Your task to perform on an android device: Open sound settings Image 0: 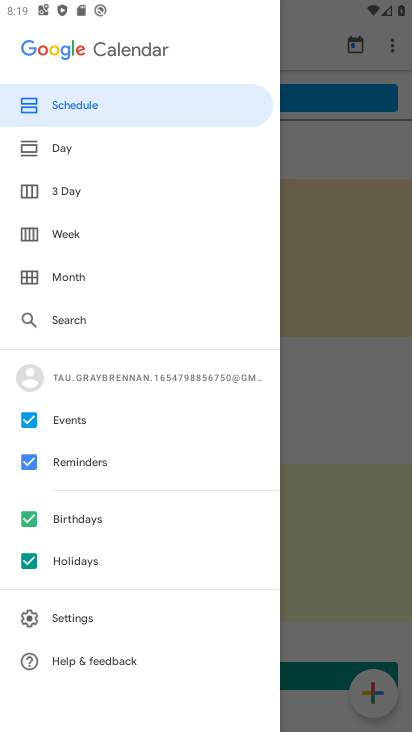
Step 0: press home button
Your task to perform on an android device: Open sound settings Image 1: 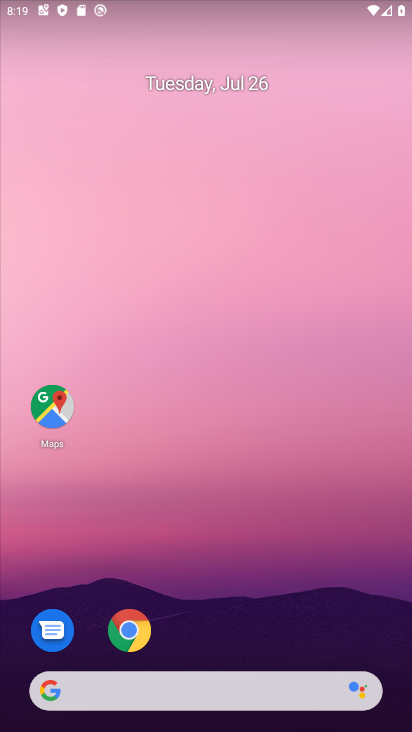
Step 1: drag from (275, 650) to (275, 76)
Your task to perform on an android device: Open sound settings Image 2: 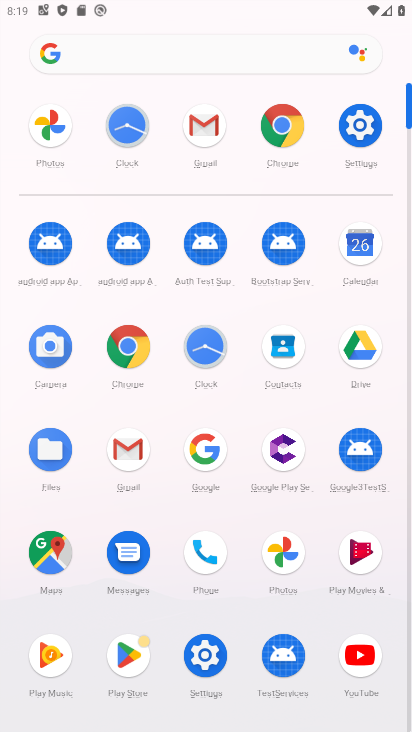
Step 2: click (367, 110)
Your task to perform on an android device: Open sound settings Image 3: 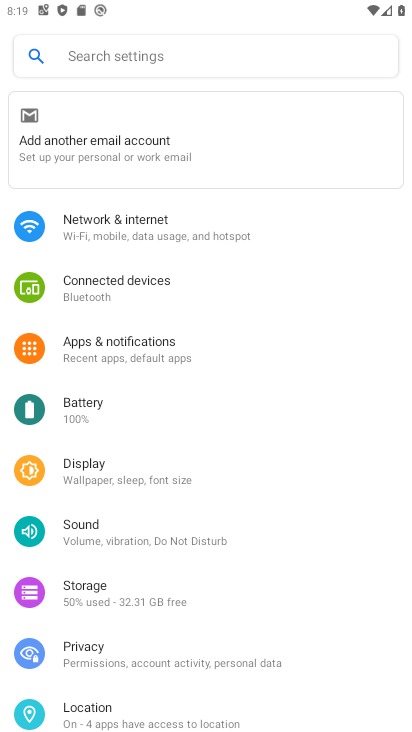
Step 3: click (87, 518)
Your task to perform on an android device: Open sound settings Image 4: 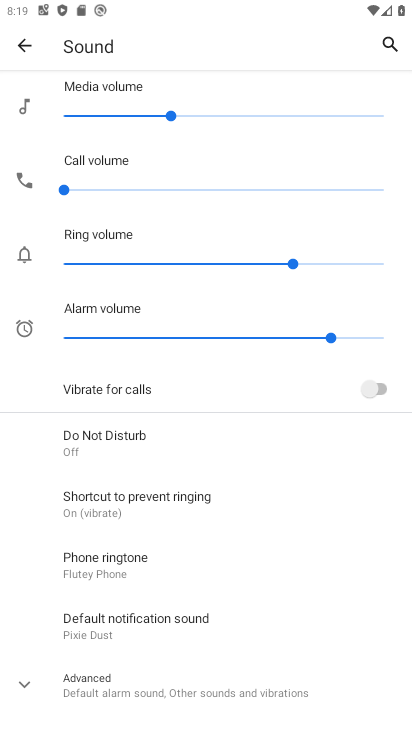
Step 4: task complete